Your task to perform on an android device: Open Youtube and go to "Your channel" Image 0: 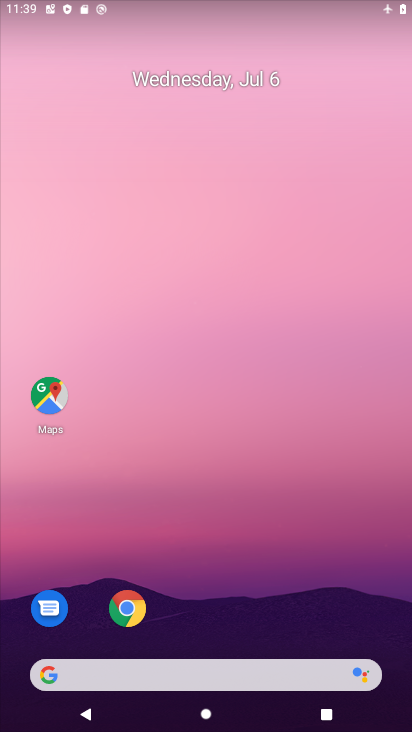
Step 0: drag from (209, 642) to (253, 224)
Your task to perform on an android device: Open Youtube and go to "Your channel" Image 1: 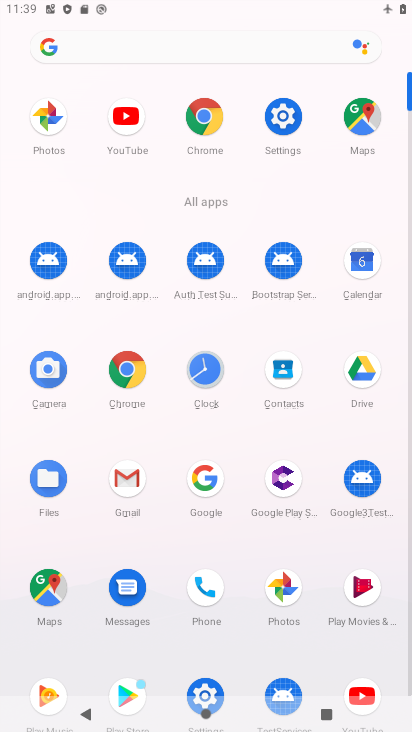
Step 1: click (360, 697)
Your task to perform on an android device: Open Youtube and go to "Your channel" Image 2: 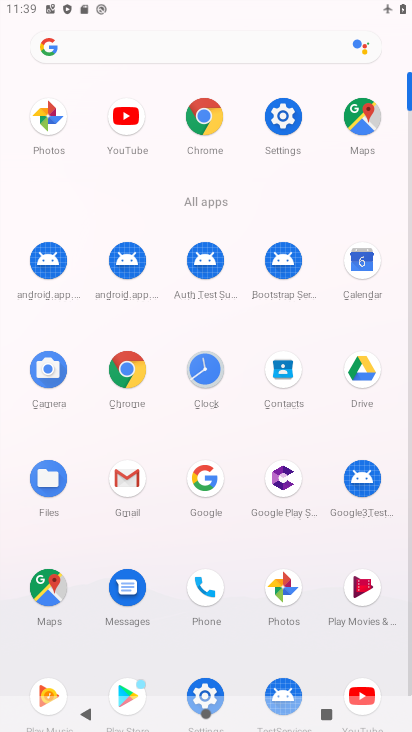
Step 2: click (360, 696)
Your task to perform on an android device: Open Youtube and go to "Your channel" Image 3: 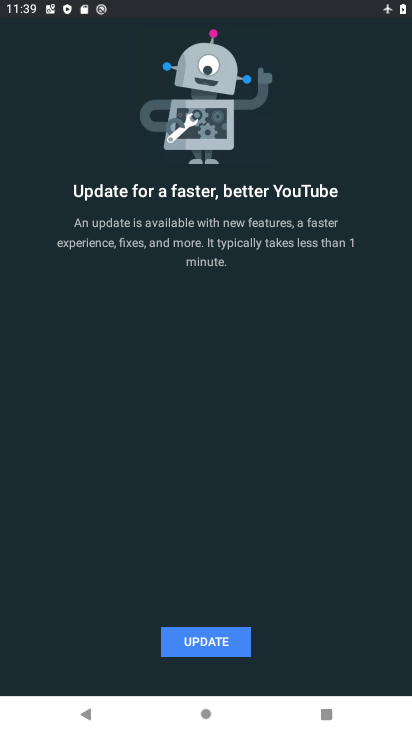
Step 3: click (207, 652)
Your task to perform on an android device: Open Youtube and go to "Your channel" Image 4: 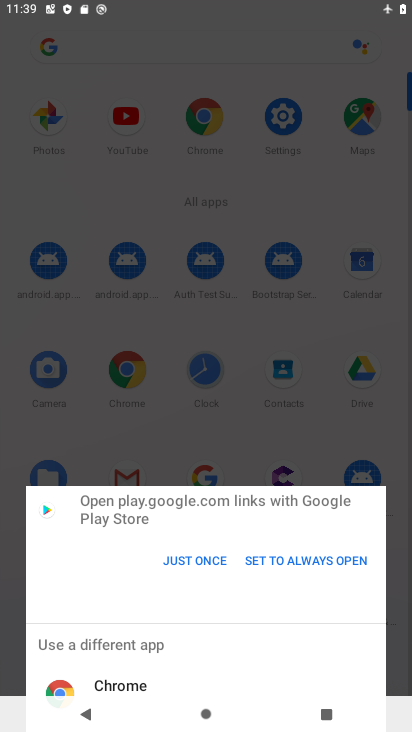
Step 4: click (302, 563)
Your task to perform on an android device: Open Youtube and go to "Your channel" Image 5: 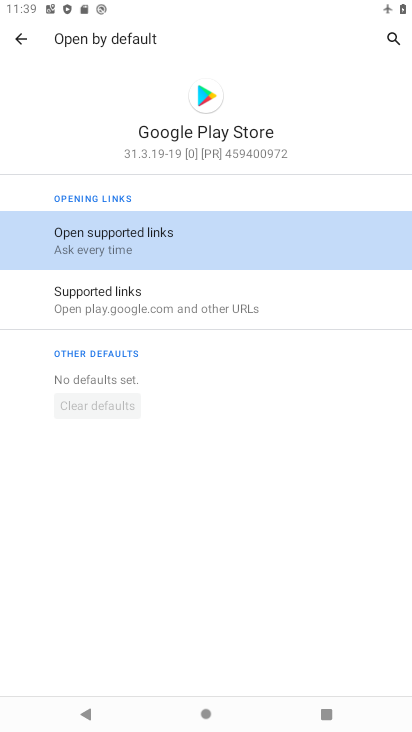
Step 5: click (194, 141)
Your task to perform on an android device: Open Youtube and go to "Your channel" Image 6: 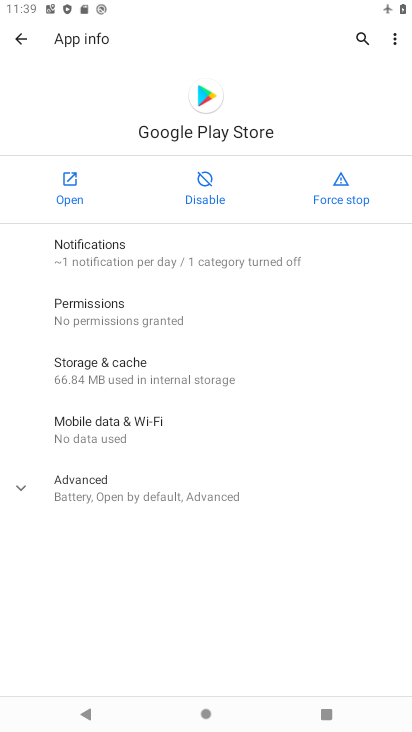
Step 6: click (66, 184)
Your task to perform on an android device: Open Youtube and go to "Your channel" Image 7: 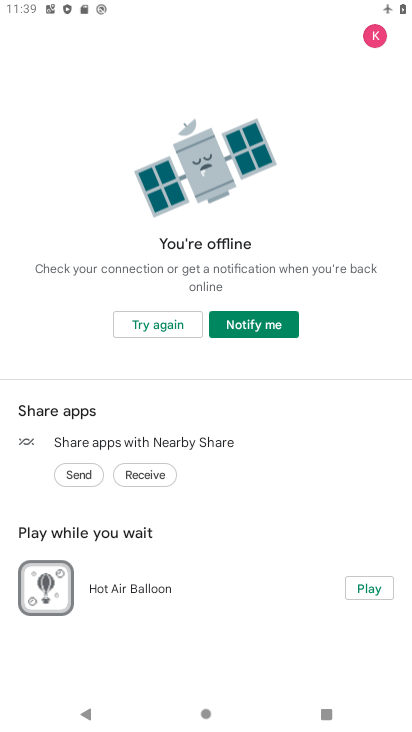
Step 7: task complete